Your task to perform on an android device: change the clock display to show seconds Image 0: 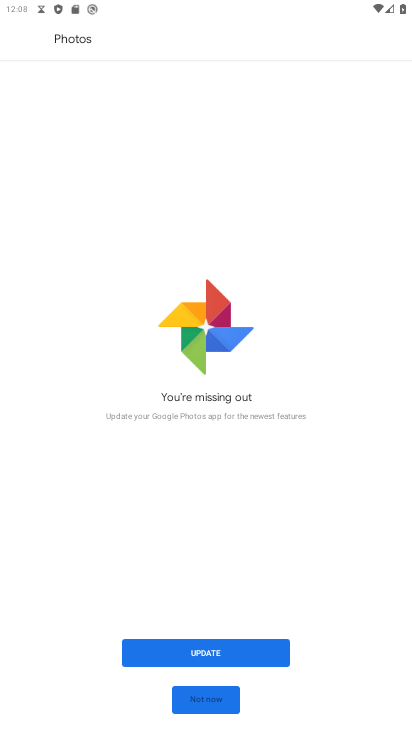
Step 0: press home button
Your task to perform on an android device: change the clock display to show seconds Image 1: 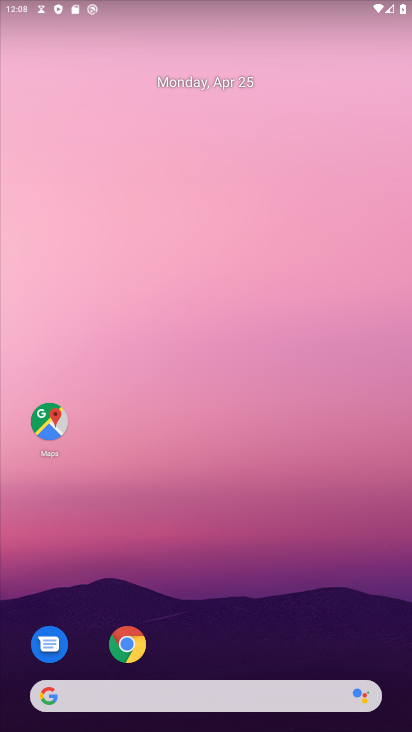
Step 1: drag from (349, 634) to (344, 64)
Your task to perform on an android device: change the clock display to show seconds Image 2: 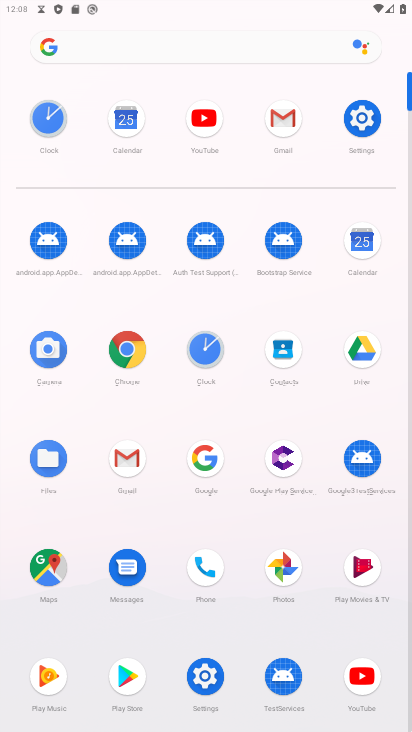
Step 2: click (51, 119)
Your task to perform on an android device: change the clock display to show seconds Image 3: 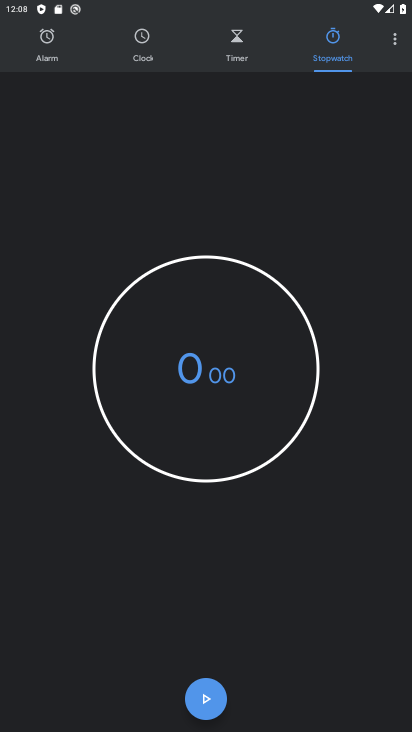
Step 3: click (393, 43)
Your task to perform on an android device: change the clock display to show seconds Image 4: 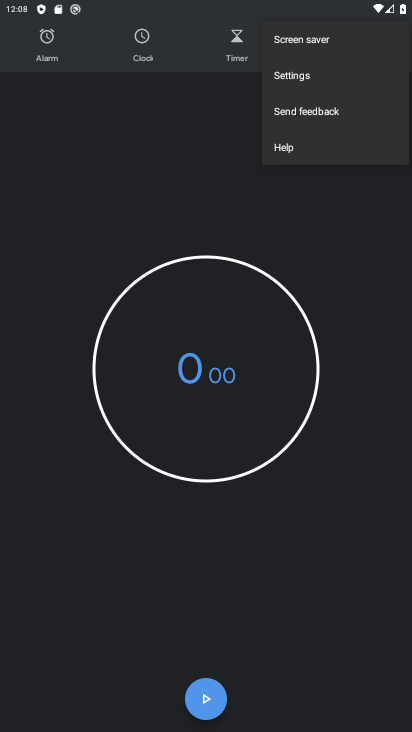
Step 4: click (309, 80)
Your task to perform on an android device: change the clock display to show seconds Image 5: 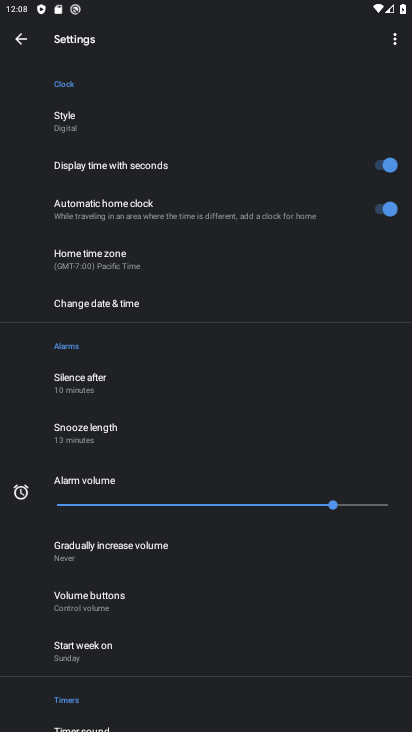
Step 5: task complete